Your task to perform on an android device: change notification settings in the gmail app Image 0: 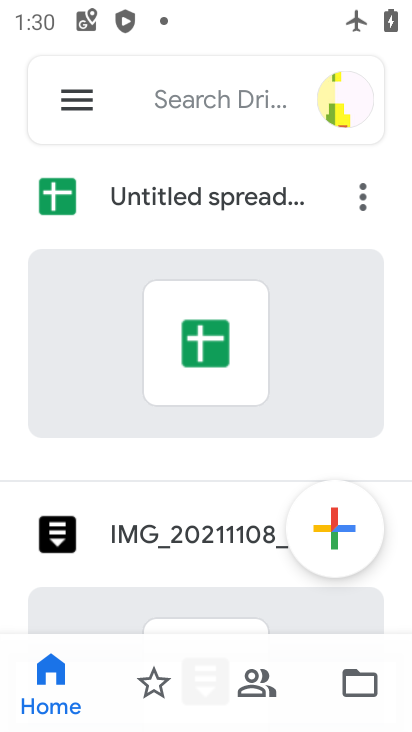
Step 0: press home button
Your task to perform on an android device: change notification settings in the gmail app Image 1: 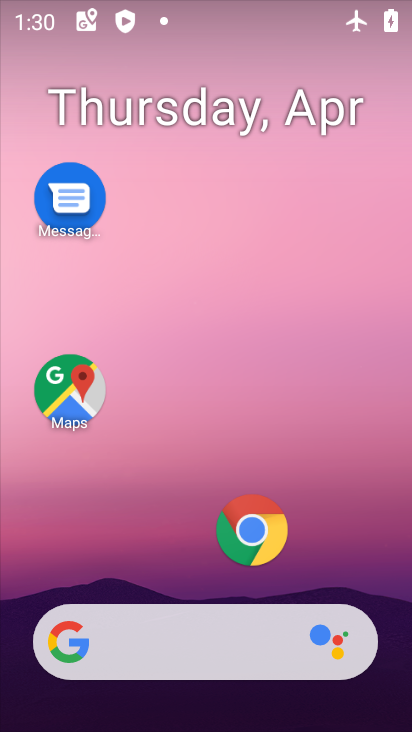
Step 1: drag from (192, 574) to (233, 37)
Your task to perform on an android device: change notification settings in the gmail app Image 2: 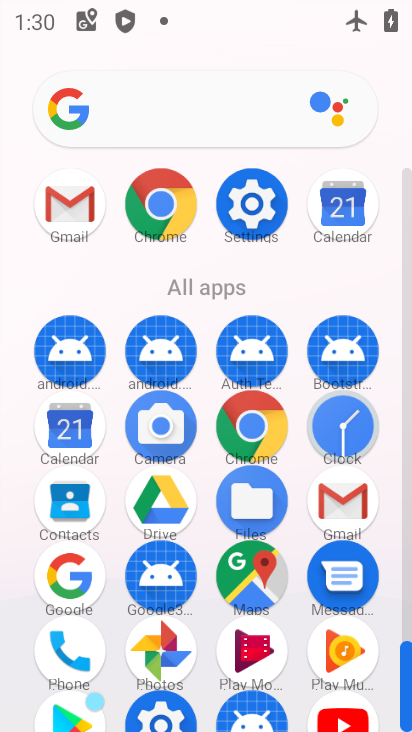
Step 2: click (338, 487)
Your task to perform on an android device: change notification settings in the gmail app Image 3: 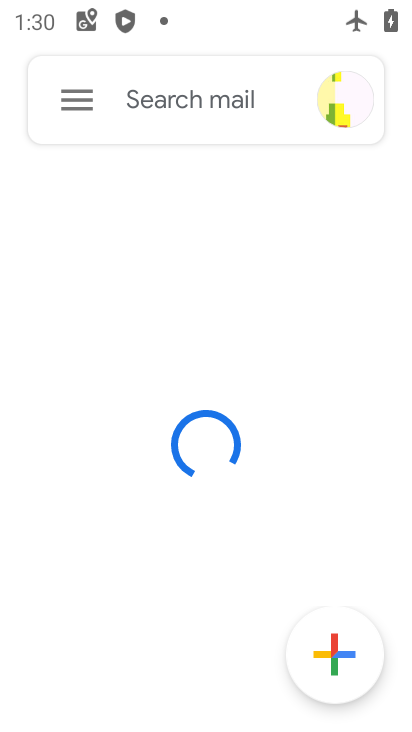
Step 3: click (62, 108)
Your task to perform on an android device: change notification settings in the gmail app Image 4: 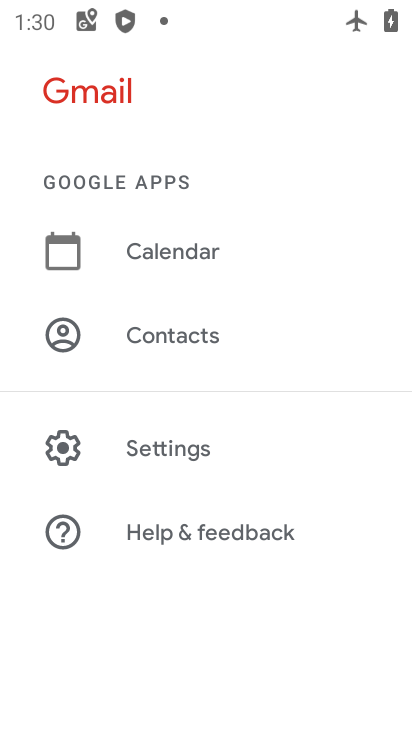
Step 4: click (137, 433)
Your task to perform on an android device: change notification settings in the gmail app Image 5: 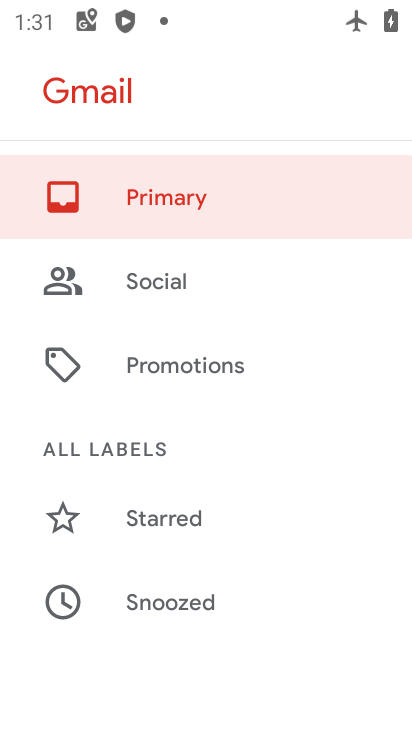
Step 5: drag from (134, 415) to (125, 3)
Your task to perform on an android device: change notification settings in the gmail app Image 6: 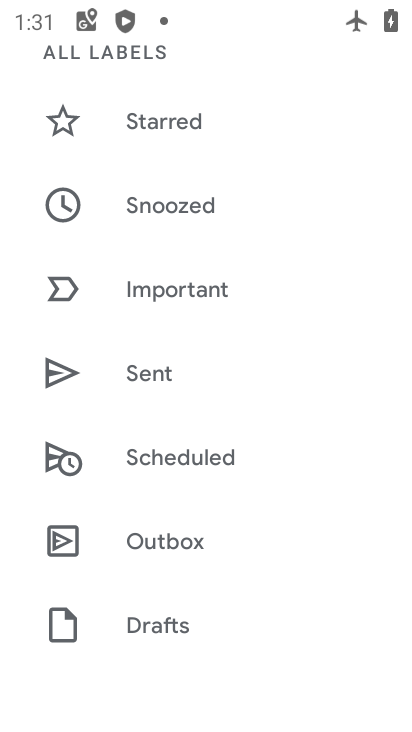
Step 6: drag from (164, 547) to (158, 72)
Your task to perform on an android device: change notification settings in the gmail app Image 7: 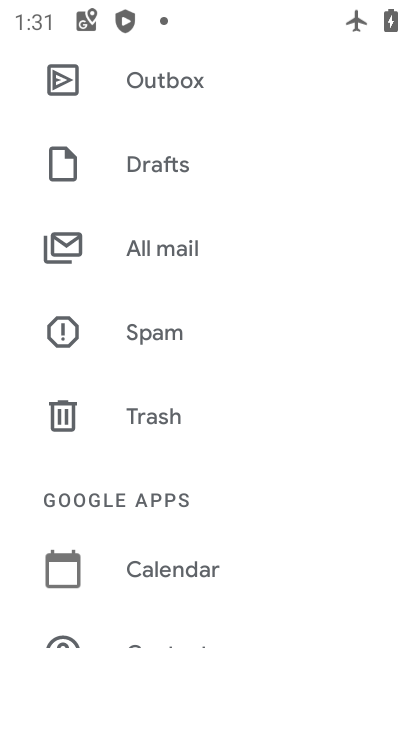
Step 7: drag from (215, 619) to (194, 118)
Your task to perform on an android device: change notification settings in the gmail app Image 8: 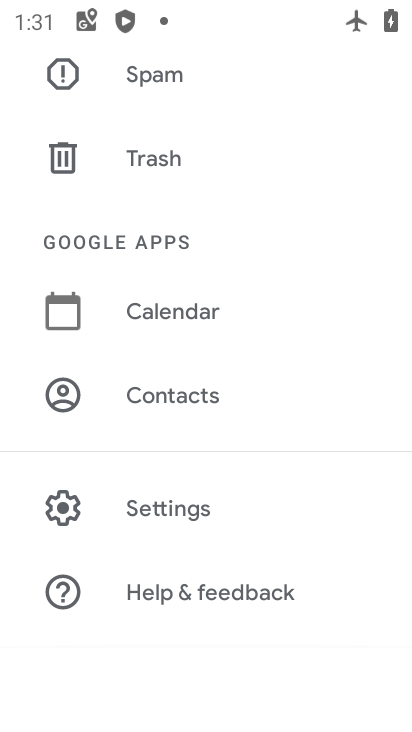
Step 8: click (202, 500)
Your task to perform on an android device: change notification settings in the gmail app Image 9: 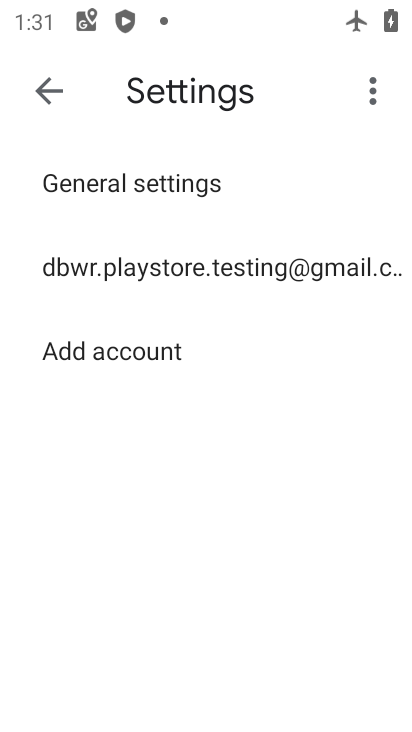
Step 9: click (171, 194)
Your task to perform on an android device: change notification settings in the gmail app Image 10: 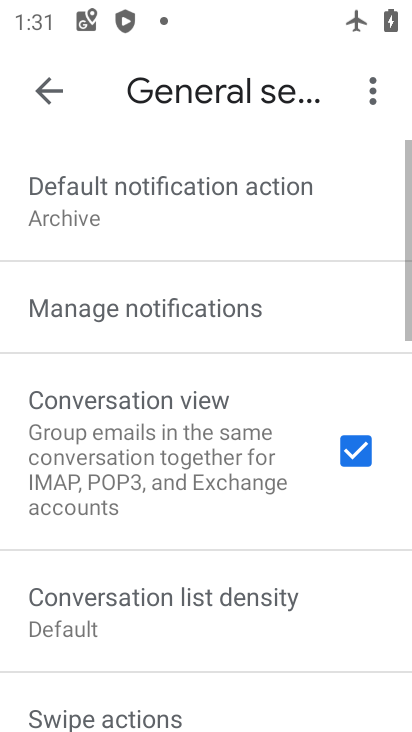
Step 10: click (197, 318)
Your task to perform on an android device: change notification settings in the gmail app Image 11: 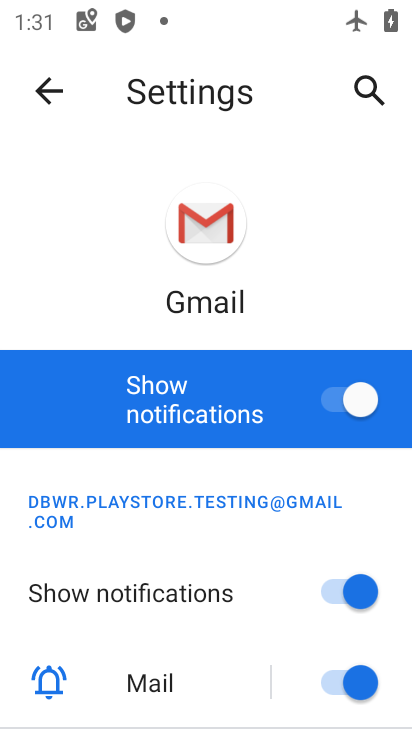
Step 11: click (358, 411)
Your task to perform on an android device: change notification settings in the gmail app Image 12: 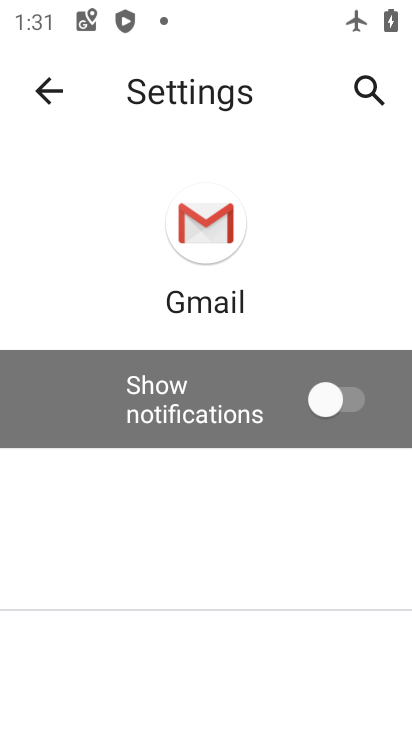
Step 12: task complete